Your task to perform on an android device: turn off location history Image 0: 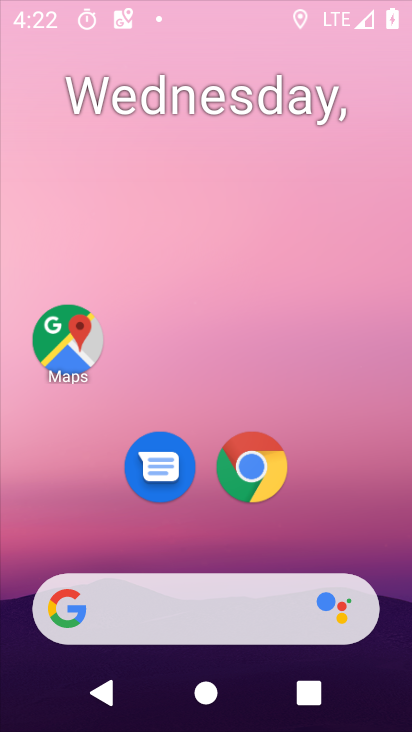
Step 0: press home button
Your task to perform on an android device: turn off location history Image 1: 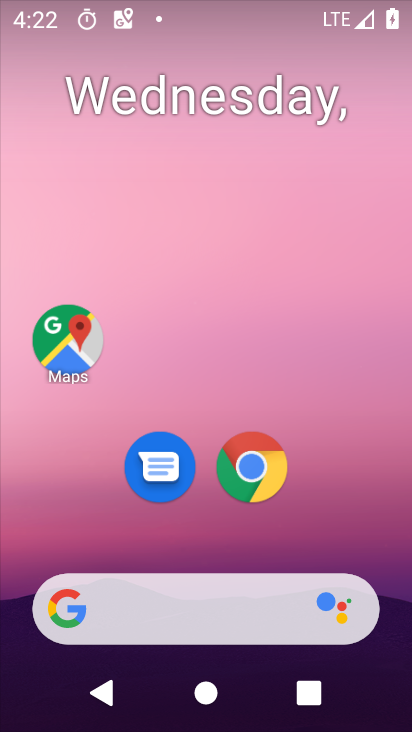
Step 1: drag from (325, 508) to (228, 0)
Your task to perform on an android device: turn off location history Image 2: 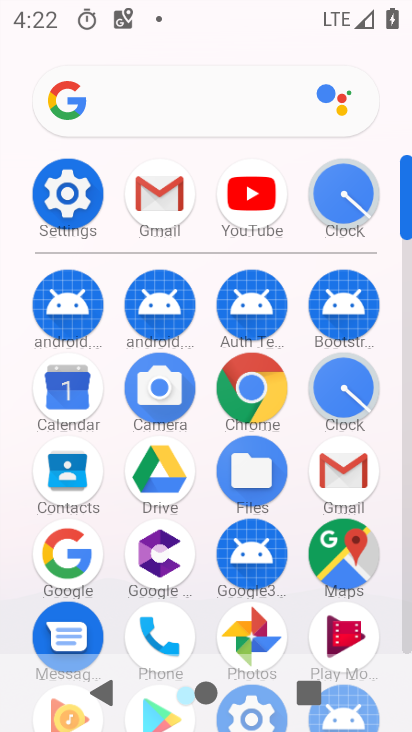
Step 2: click (67, 196)
Your task to perform on an android device: turn off location history Image 3: 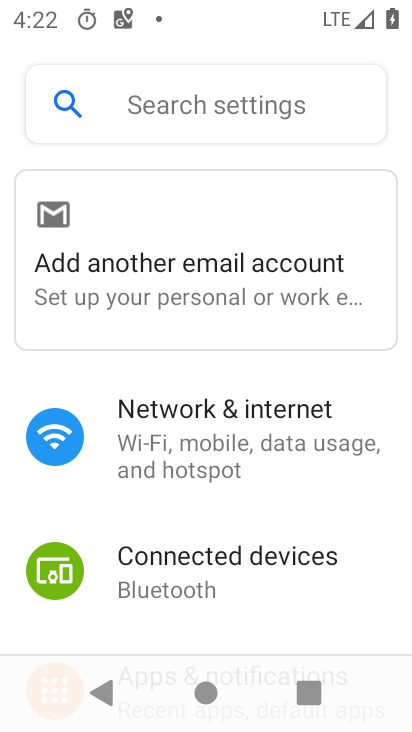
Step 3: drag from (279, 542) to (218, 14)
Your task to perform on an android device: turn off location history Image 4: 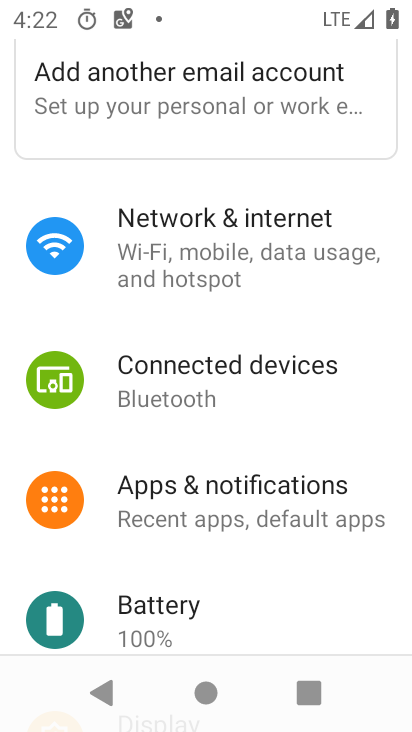
Step 4: drag from (249, 594) to (257, 161)
Your task to perform on an android device: turn off location history Image 5: 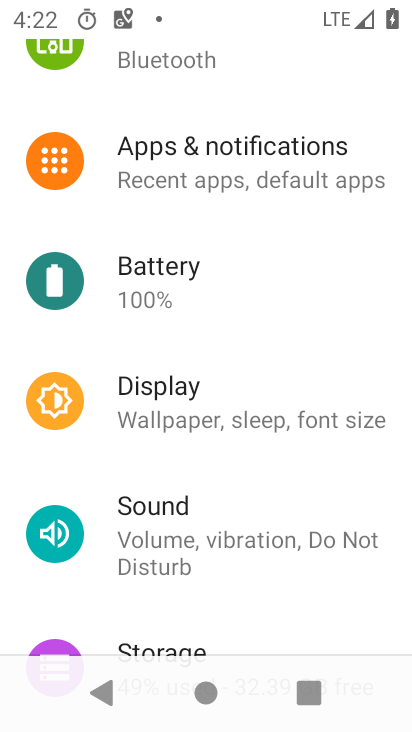
Step 5: drag from (293, 444) to (300, 184)
Your task to perform on an android device: turn off location history Image 6: 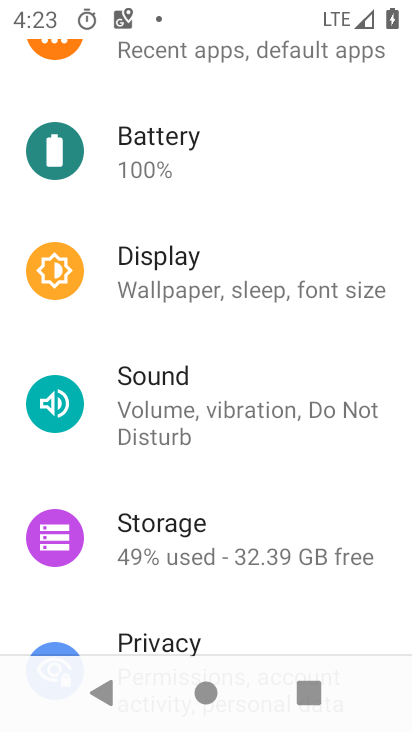
Step 6: drag from (241, 574) to (277, 92)
Your task to perform on an android device: turn off location history Image 7: 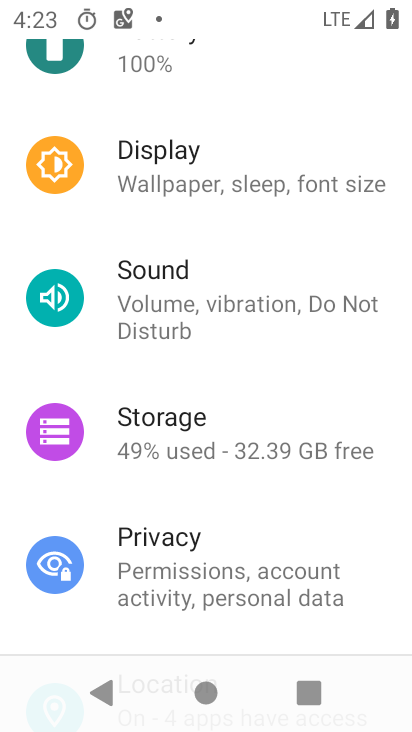
Step 7: drag from (278, 504) to (249, 102)
Your task to perform on an android device: turn off location history Image 8: 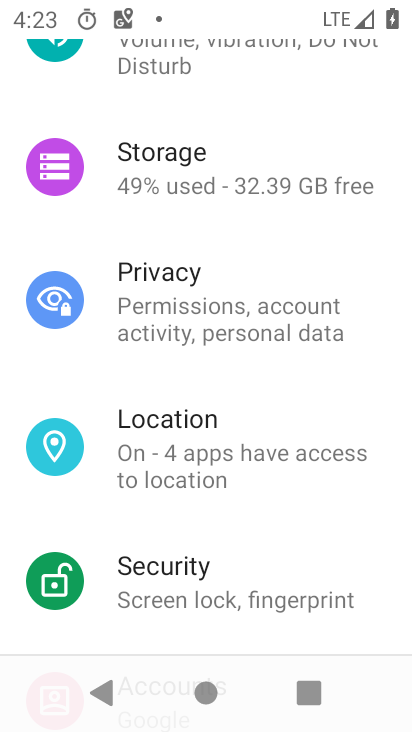
Step 8: click (223, 447)
Your task to perform on an android device: turn off location history Image 9: 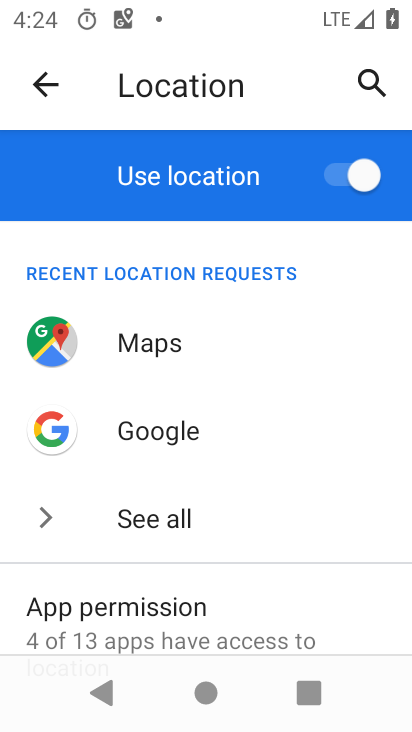
Step 9: drag from (212, 593) to (212, 165)
Your task to perform on an android device: turn off location history Image 10: 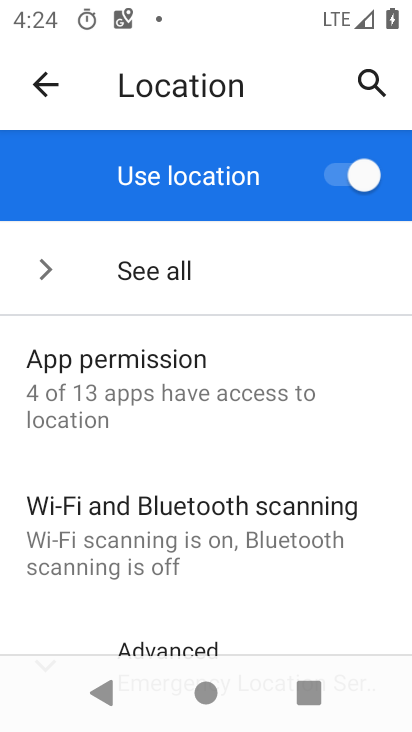
Step 10: drag from (276, 435) to (278, 252)
Your task to perform on an android device: turn off location history Image 11: 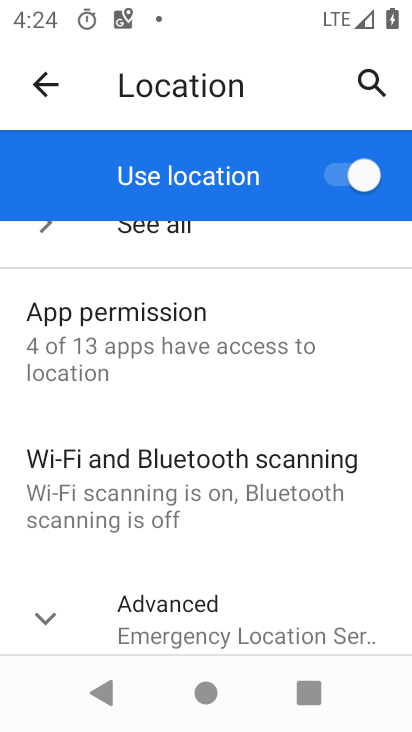
Step 11: drag from (293, 564) to (293, 215)
Your task to perform on an android device: turn off location history Image 12: 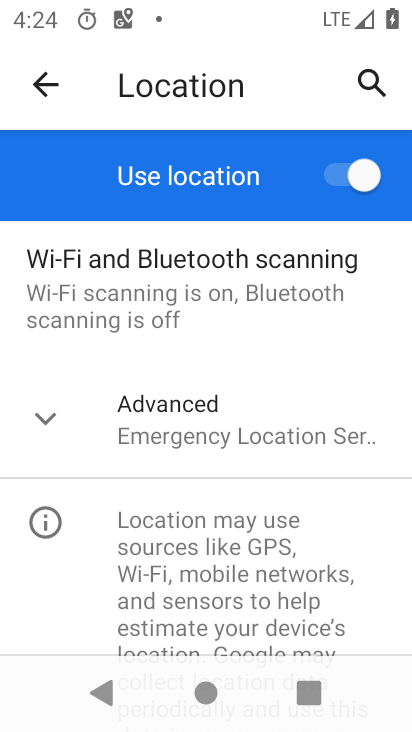
Step 12: click (245, 424)
Your task to perform on an android device: turn off location history Image 13: 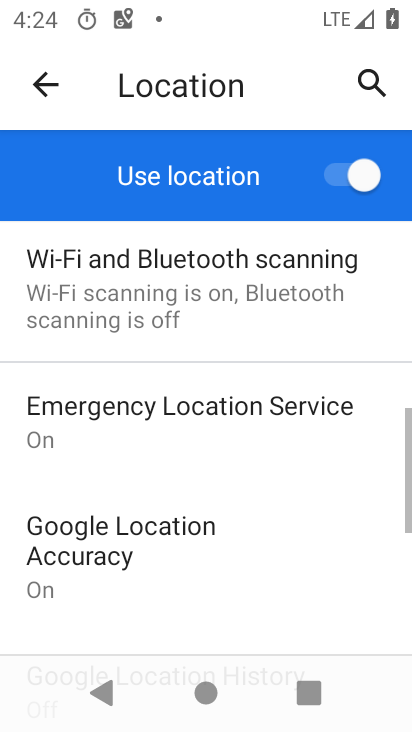
Step 13: drag from (217, 560) to (241, 246)
Your task to perform on an android device: turn off location history Image 14: 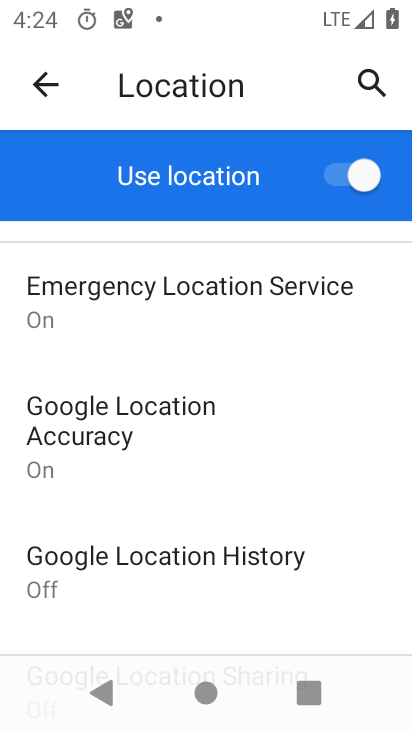
Step 14: click (219, 569)
Your task to perform on an android device: turn off location history Image 15: 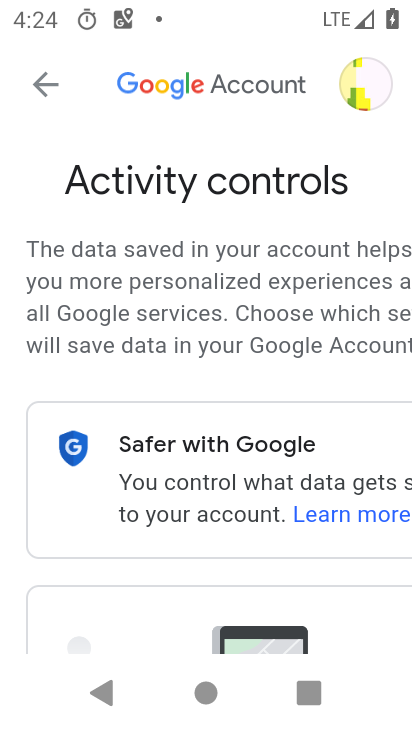
Step 15: drag from (352, 547) to (289, 145)
Your task to perform on an android device: turn off location history Image 16: 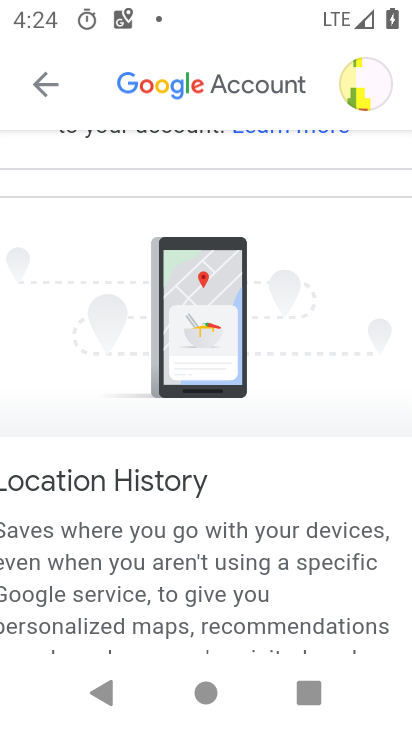
Step 16: drag from (295, 542) to (276, 95)
Your task to perform on an android device: turn off location history Image 17: 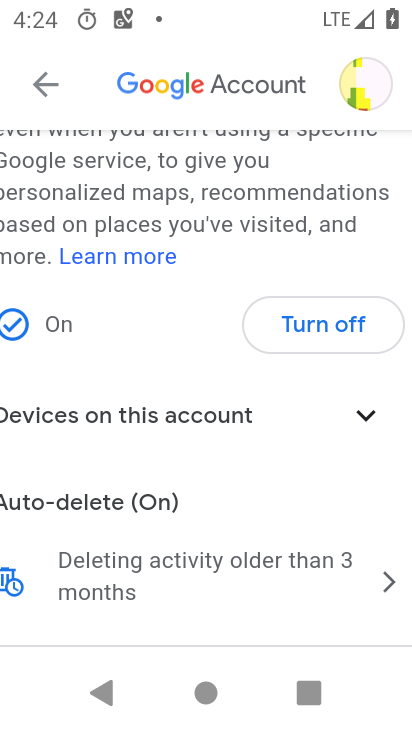
Step 17: click (312, 323)
Your task to perform on an android device: turn off location history Image 18: 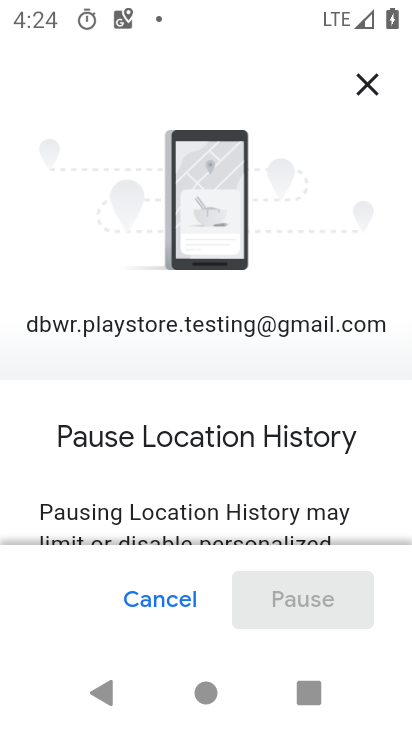
Step 18: drag from (241, 463) to (253, 0)
Your task to perform on an android device: turn off location history Image 19: 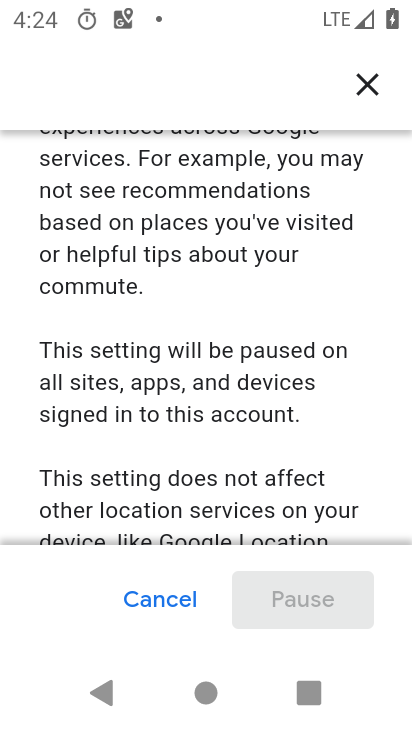
Step 19: drag from (233, 413) to (258, 75)
Your task to perform on an android device: turn off location history Image 20: 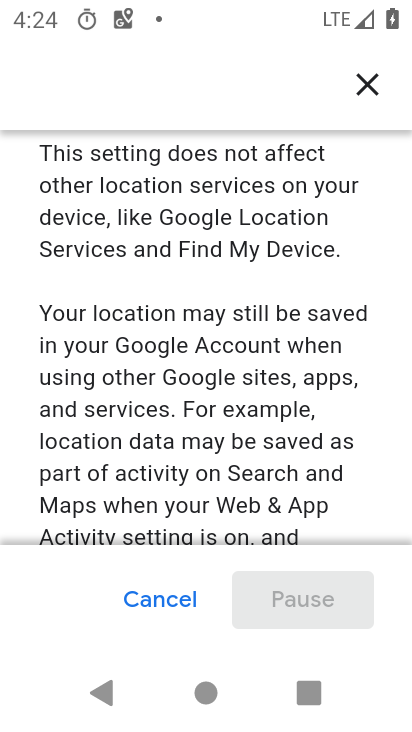
Step 20: drag from (227, 499) to (268, 146)
Your task to perform on an android device: turn off location history Image 21: 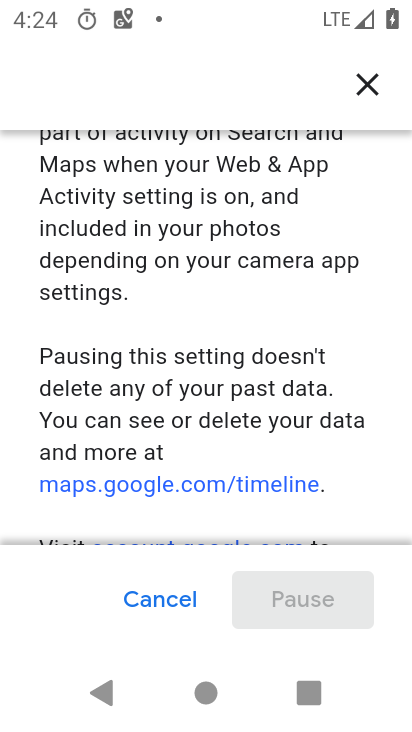
Step 21: drag from (264, 464) to (240, 60)
Your task to perform on an android device: turn off location history Image 22: 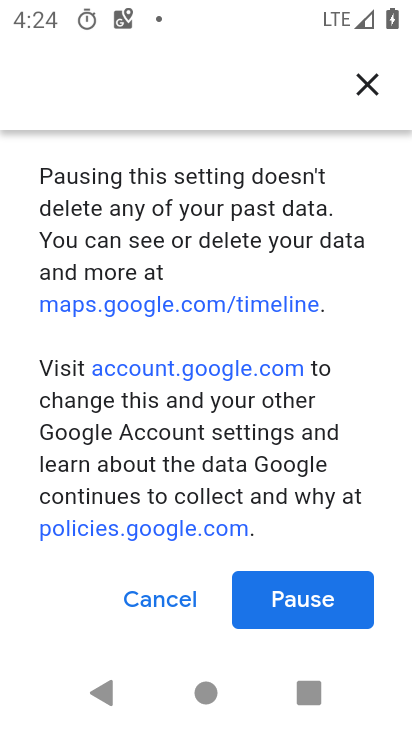
Step 22: click (310, 584)
Your task to perform on an android device: turn off location history Image 23: 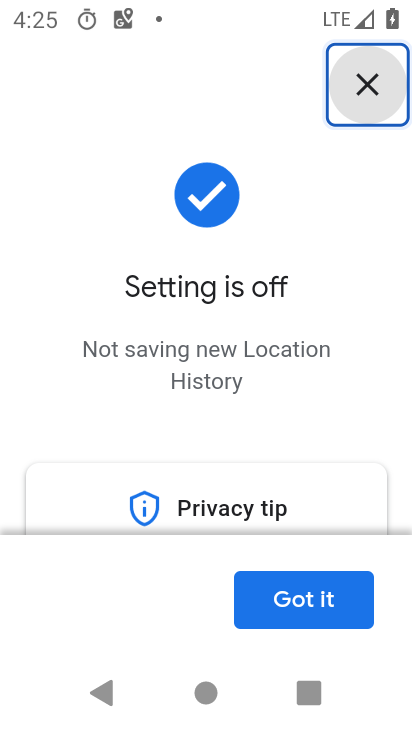
Step 23: click (305, 596)
Your task to perform on an android device: turn off location history Image 24: 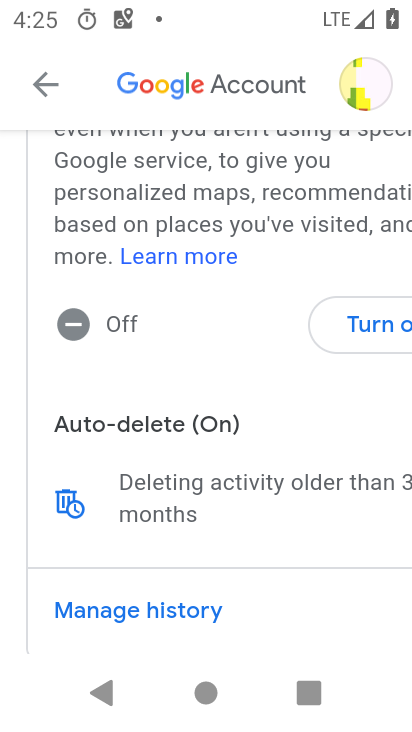
Step 24: task complete